Your task to perform on an android device: Open the stopwatch Image 0: 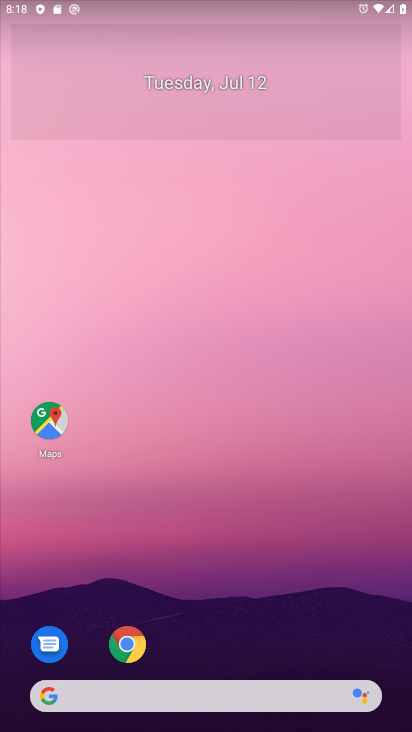
Step 0: drag from (24, 701) to (371, 49)
Your task to perform on an android device: Open the stopwatch Image 1: 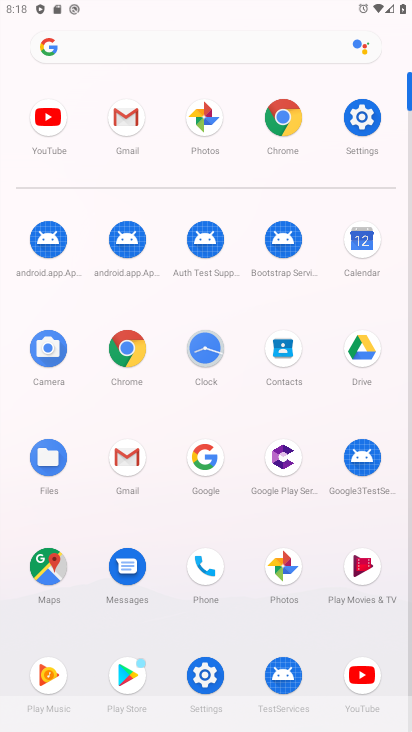
Step 1: click (202, 354)
Your task to perform on an android device: Open the stopwatch Image 2: 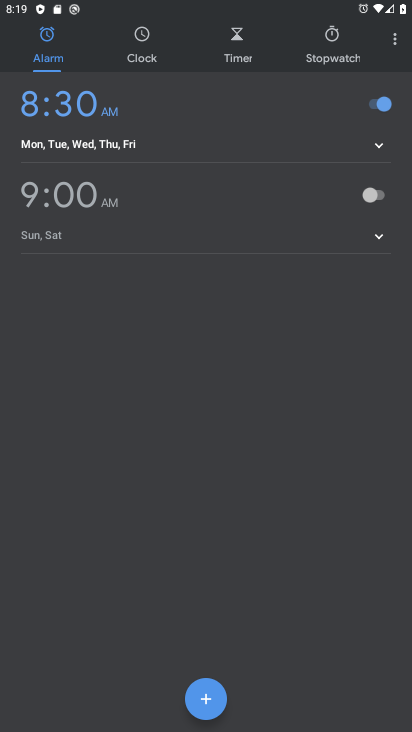
Step 2: click (322, 41)
Your task to perform on an android device: Open the stopwatch Image 3: 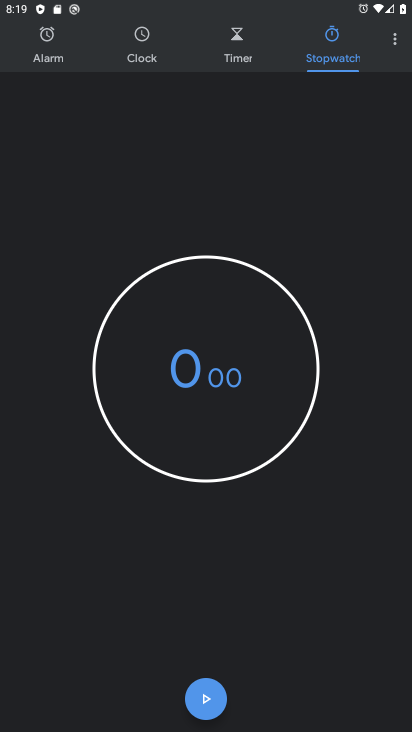
Step 3: task complete